Your task to perform on an android device: turn on translation in the chrome app Image 0: 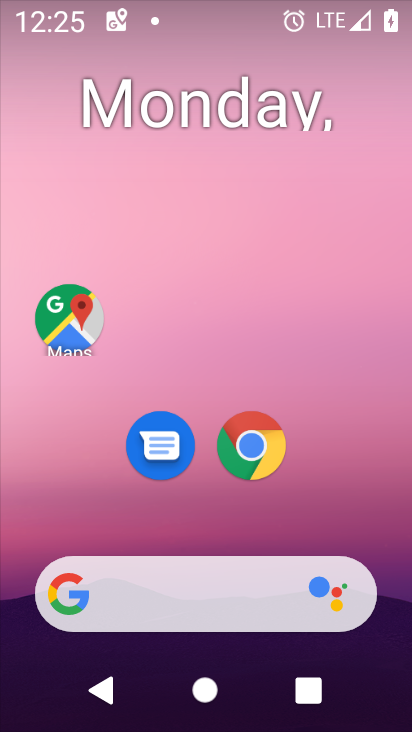
Step 0: drag from (216, 517) to (281, 162)
Your task to perform on an android device: turn on translation in the chrome app Image 1: 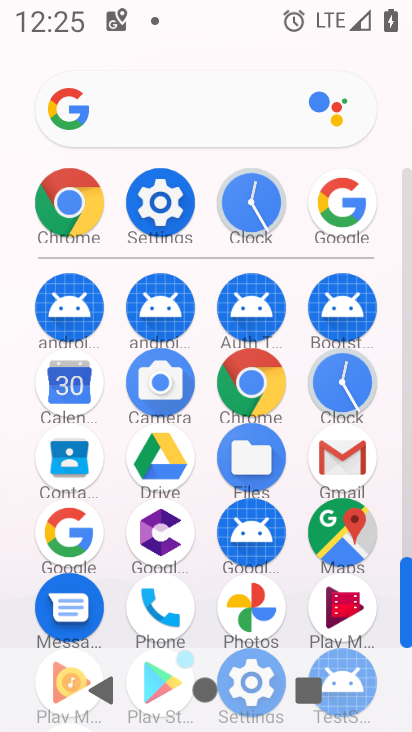
Step 1: click (243, 375)
Your task to perform on an android device: turn on translation in the chrome app Image 2: 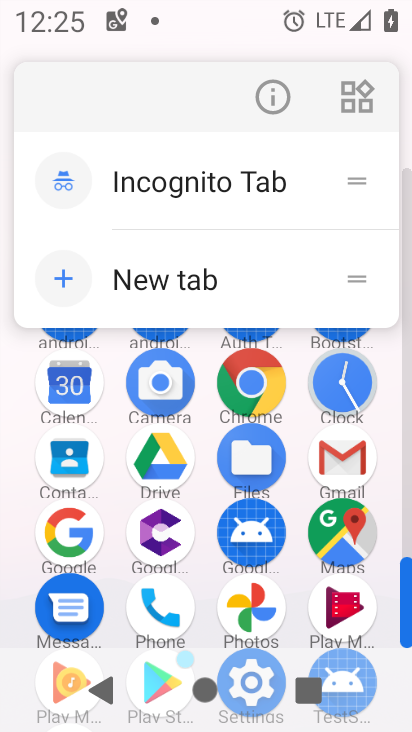
Step 2: click (278, 93)
Your task to perform on an android device: turn on translation in the chrome app Image 3: 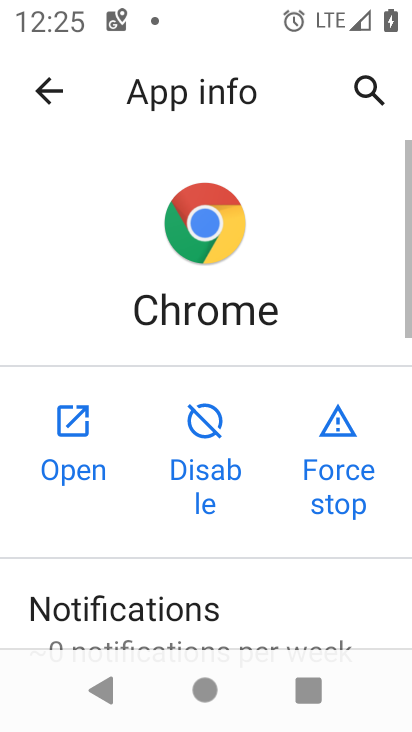
Step 3: click (74, 457)
Your task to perform on an android device: turn on translation in the chrome app Image 4: 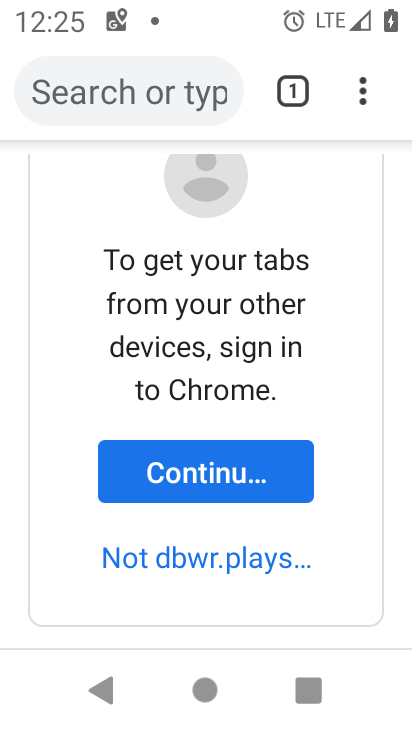
Step 4: drag from (361, 96) to (163, 488)
Your task to perform on an android device: turn on translation in the chrome app Image 5: 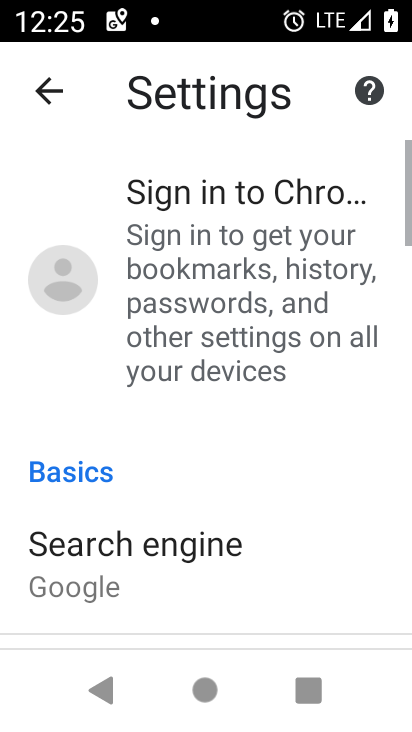
Step 5: drag from (176, 438) to (238, 4)
Your task to perform on an android device: turn on translation in the chrome app Image 6: 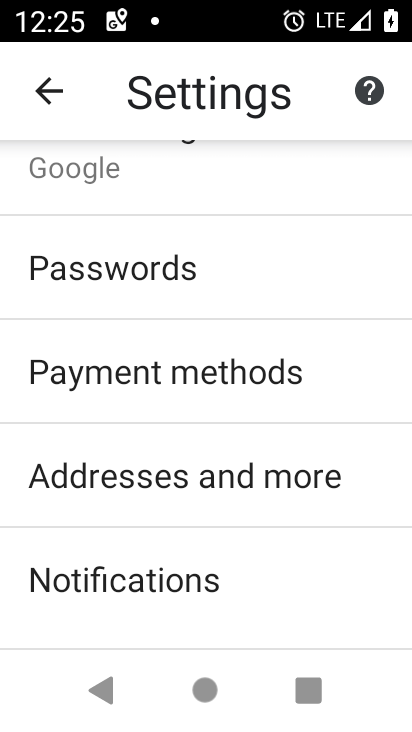
Step 6: drag from (170, 543) to (193, 81)
Your task to perform on an android device: turn on translation in the chrome app Image 7: 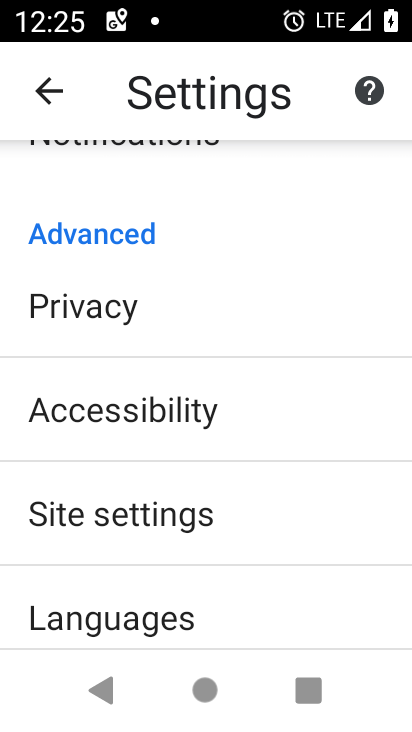
Step 7: click (156, 614)
Your task to perform on an android device: turn on translation in the chrome app Image 8: 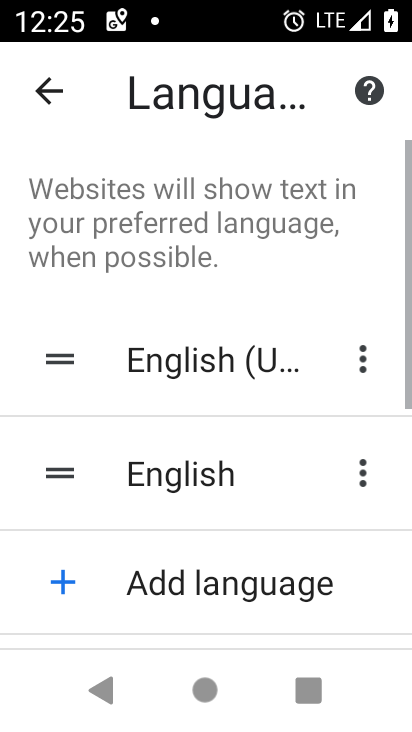
Step 8: drag from (196, 524) to (258, 89)
Your task to perform on an android device: turn on translation in the chrome app Image 9: 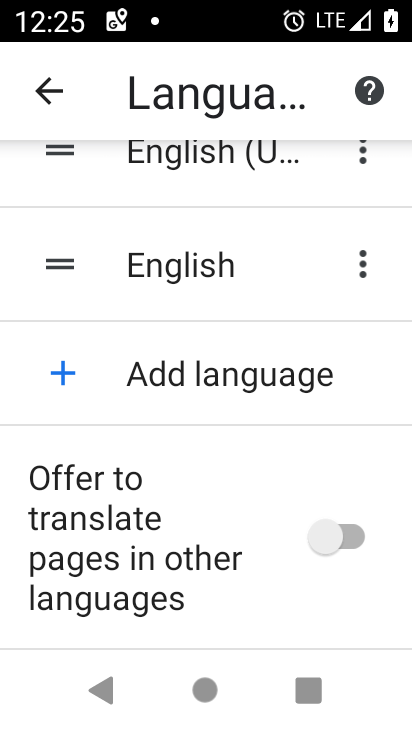
Step 9: click (304, 509)
Your task to perform on an android device: turn on translation in the chrome app Image 10: 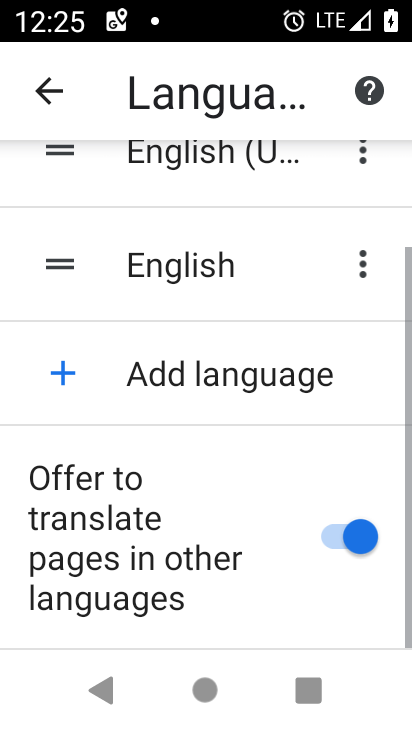
Step 10: task complete